Your task to perform on an android device: Open the calendar and show me this week's events? Image 0: 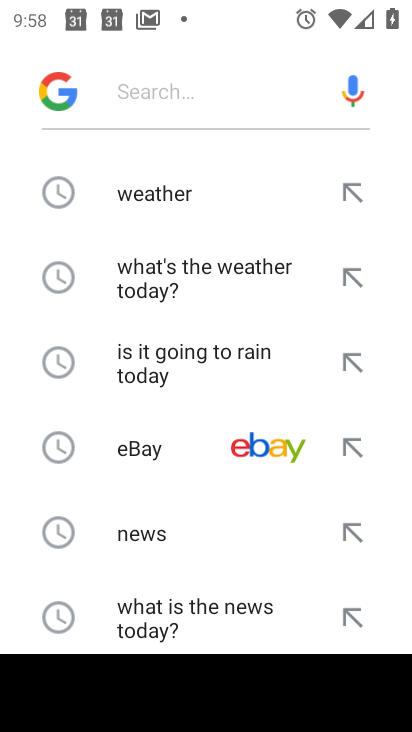
Step 0: press back button
Your task to perform on an android device: Open the calendar and show me this week's events? Image 1: 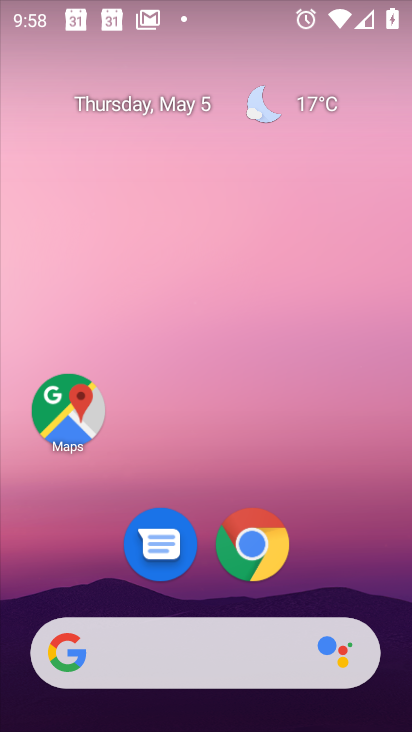
Step 1: drag from (342, 572) to (311, 170)
Your task to perform on an android device: Open the calendar and show me this week's events? Image 2: 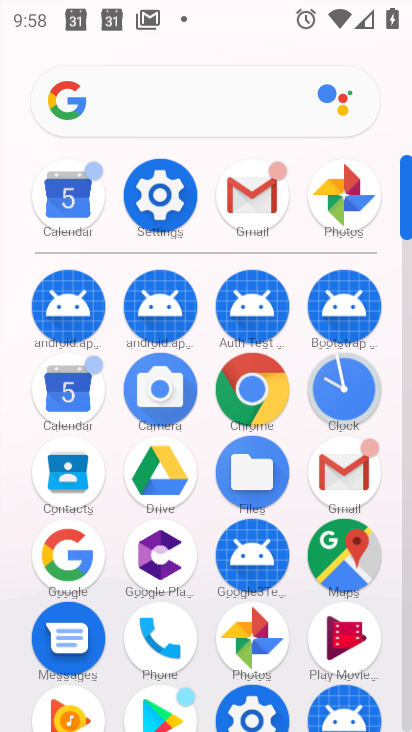
Step 2: click (77, 379)
Your task to perform on an android device: Open the calendar and show me this week's events? Image 3: 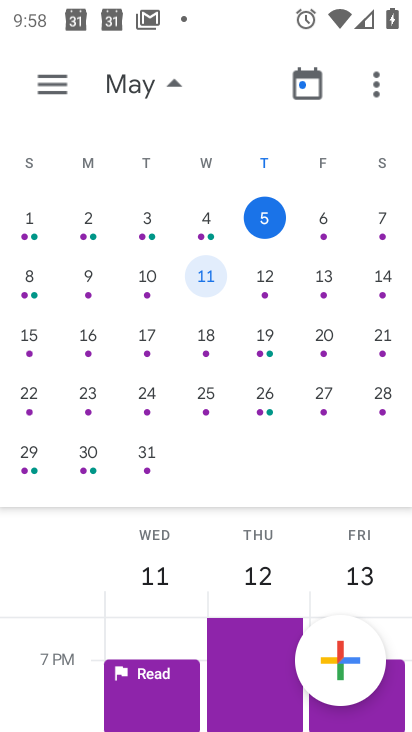
Step 3: click (58, 85)
Your task to perform on an android device: Open the calendar and show me this week's events? Image 4: 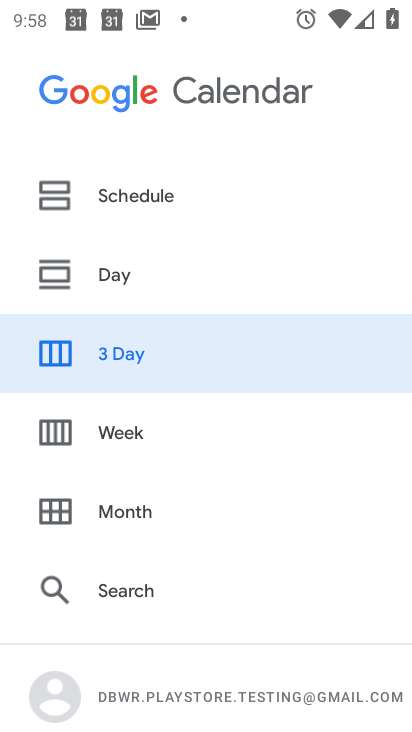
Step 4: click (134, 423)
Your task to perform on an android device: Open the calendar and show me this week's events? Image 5: 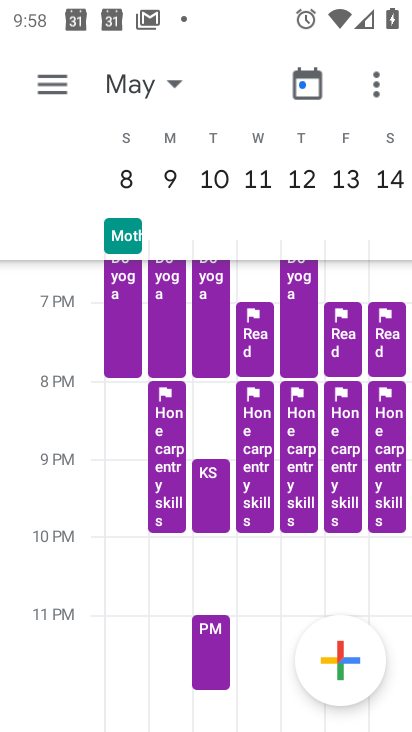
Step 5: task complete